Your task to perform on an android device: Clear all items from cart on costco.com. Search for jbl charge 4 on costco.com, select the first entry, and add it to the cart. Image 0: 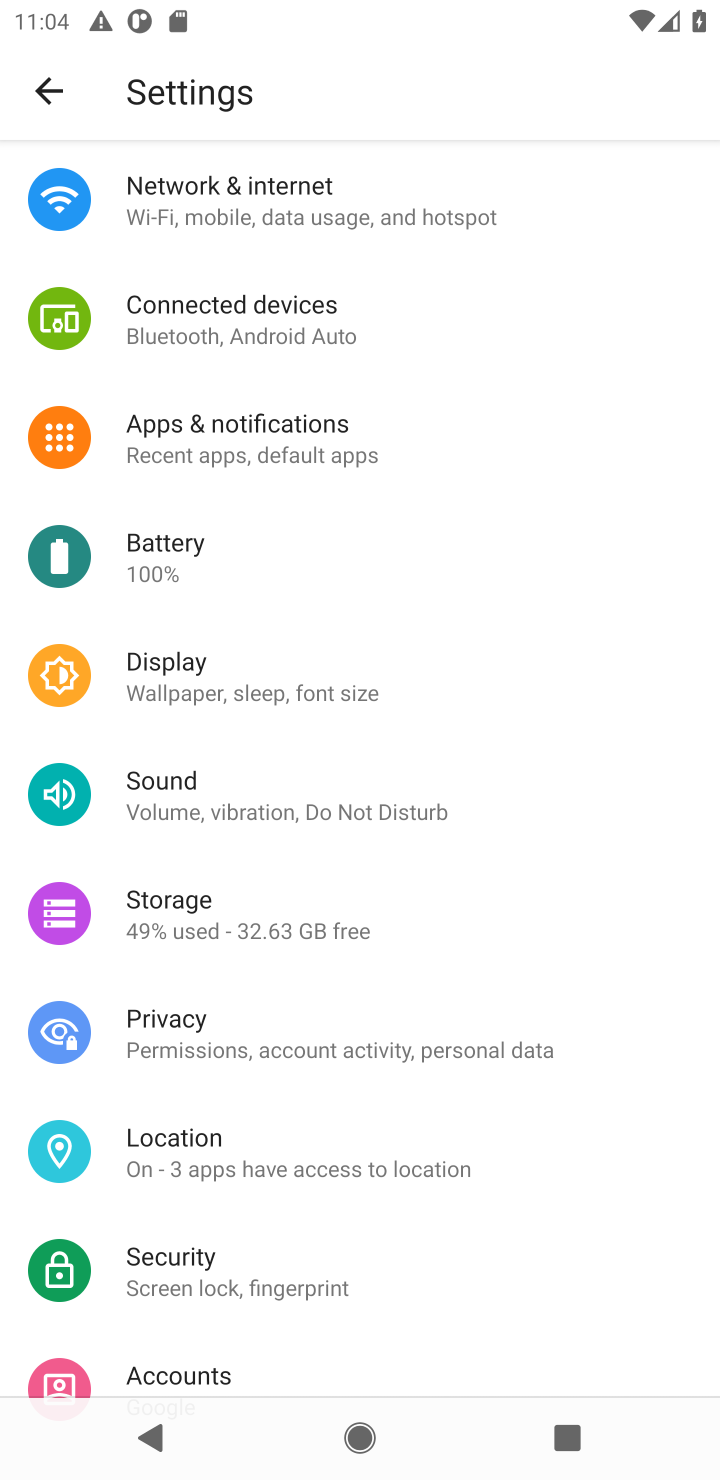
Step 0: press home button
Your task to perform on an android device: Clear all items from cart on costco.com. Search for jbl charge 4 on costco.com, select the first entry, and add it to the cart. Image 1: 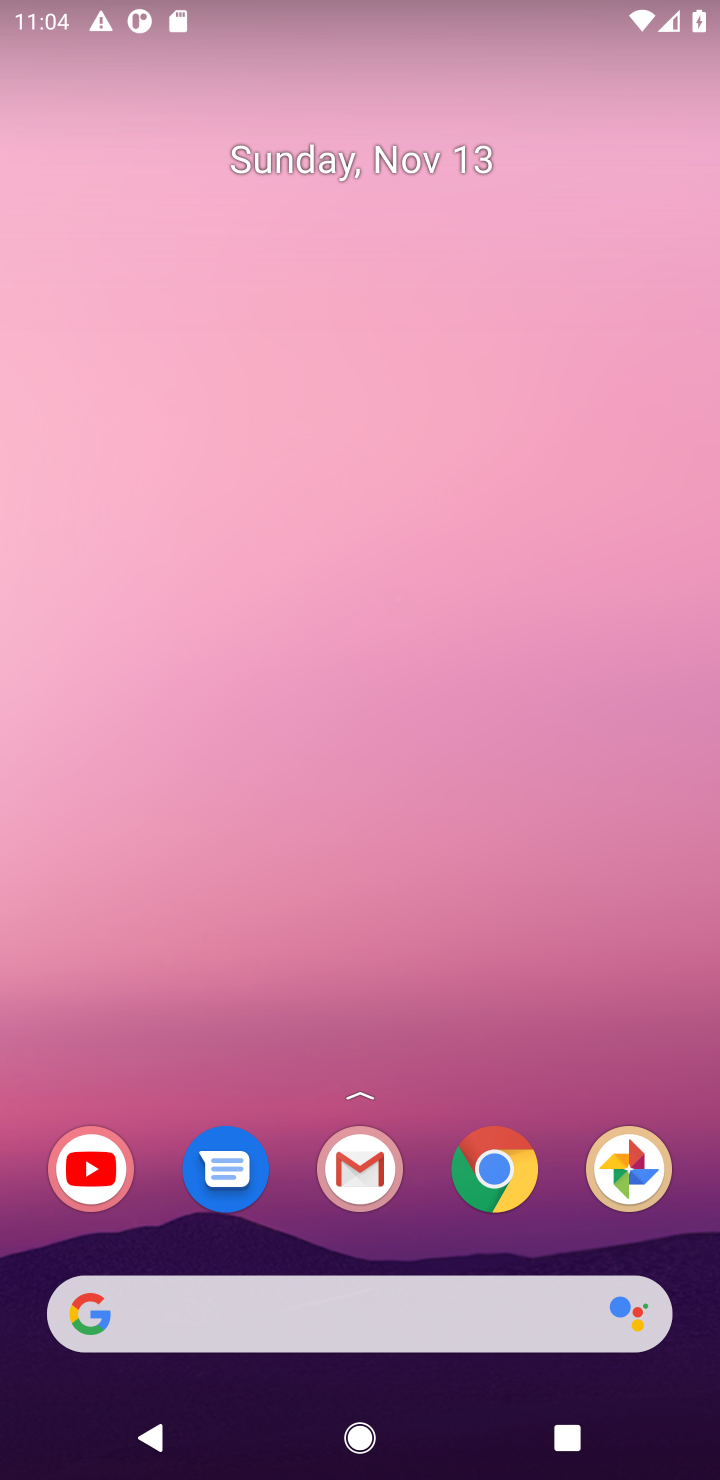
Step 1: drag from (406, 1264) to (609, 179)
Your task to perform on an android device: Clear all items from cart on costco.com. Search for jbl charge 4 on costco.com, select the first entry, and add it to the cart. Image 2: 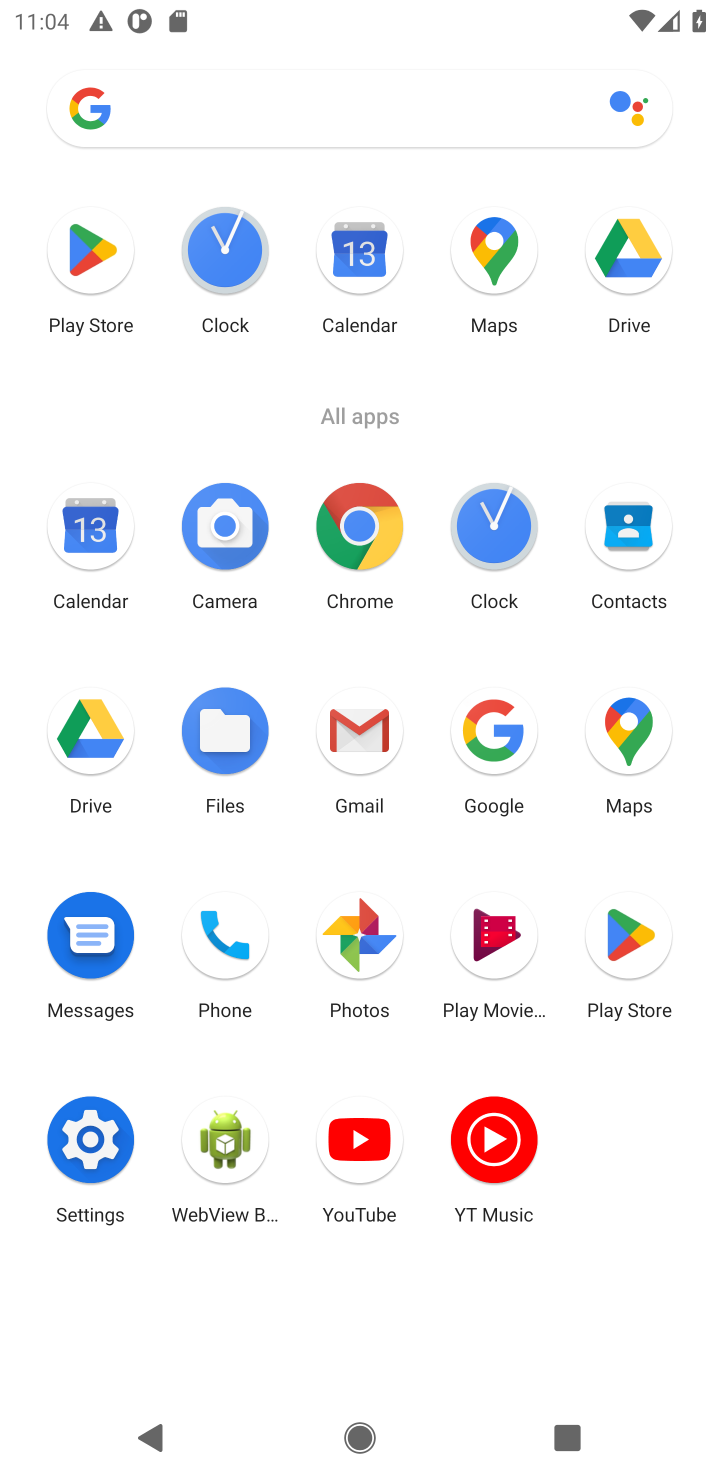
Step 2: click (372, 521)
Your task to perform on an android device: Clear all items from cart on costco.com. Search for jbl charge 4 on costco.com, select the first entry, and add it to the cart. Image 3: 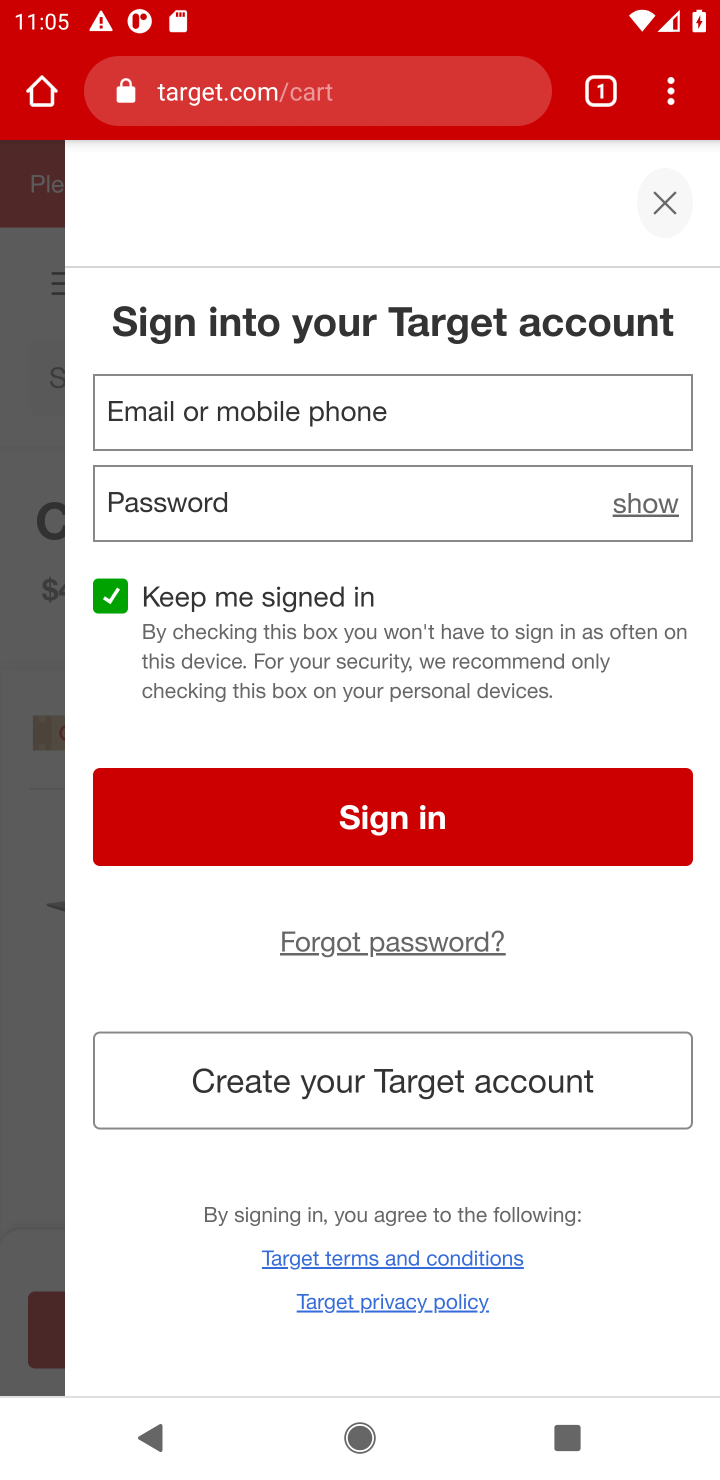
Step 3: click (311, 106)
Your task to perform on an android device: Clear all items from cart on costco.com. Search for jbl charge 4 on costco.com, select the first entry, and add it to the cart. Image 4: 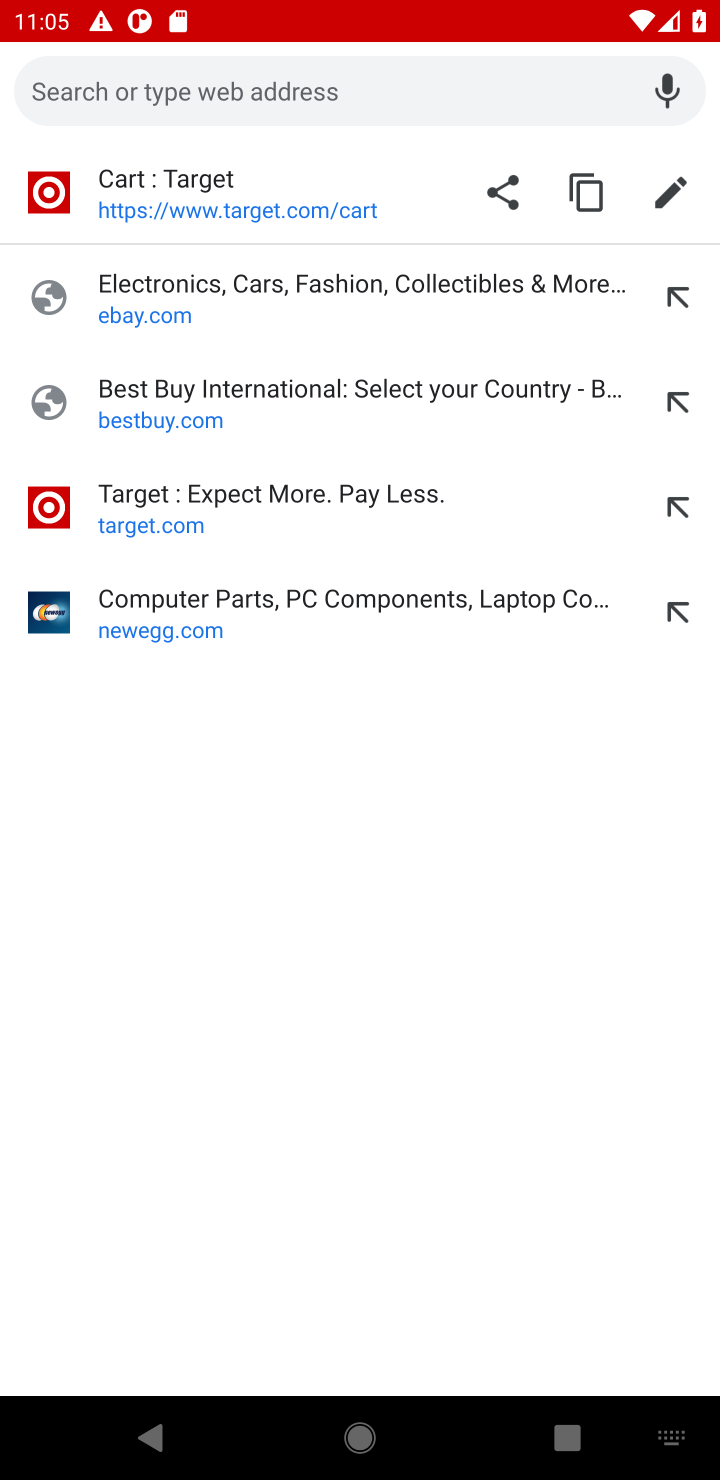
Step 4: type "costco.com"
Your task to perform on an android device: Clear all items from cart on costco.com. Search for jbl charge 4 on costco.com, select the first entry, and add it to the cart. Image 5: 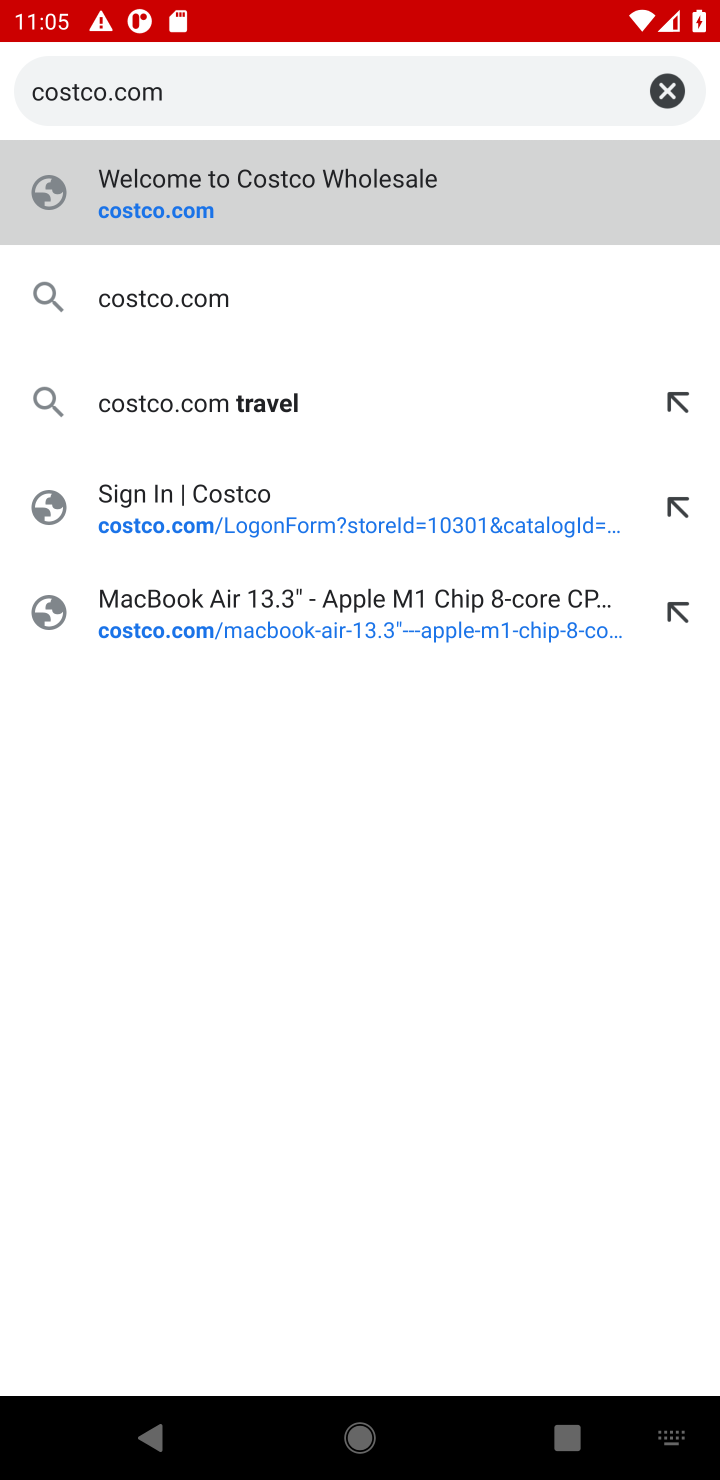
Step 5: press enter
Your task to perform on an android device: Clear all items from cart on costco.com. Search for jbl charge 4 on costco.com, select the first entry, and add it to the cart. Image 6: 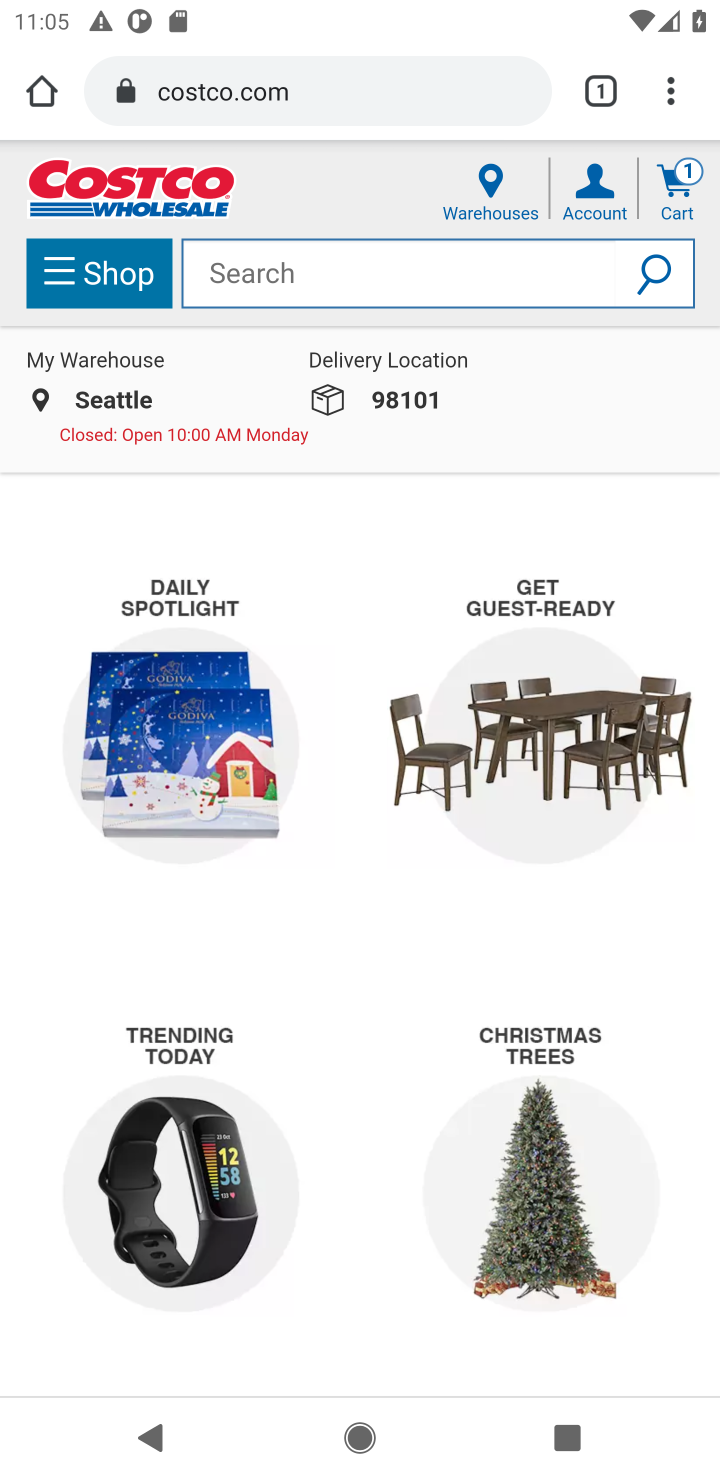
Step 6: click (684, 183)
Your task to perform on an android device: Clear all items from cart on costco.com. Search for jbl charge 4 on costco.com, select the first entry, and add it to the cart. Image 7: 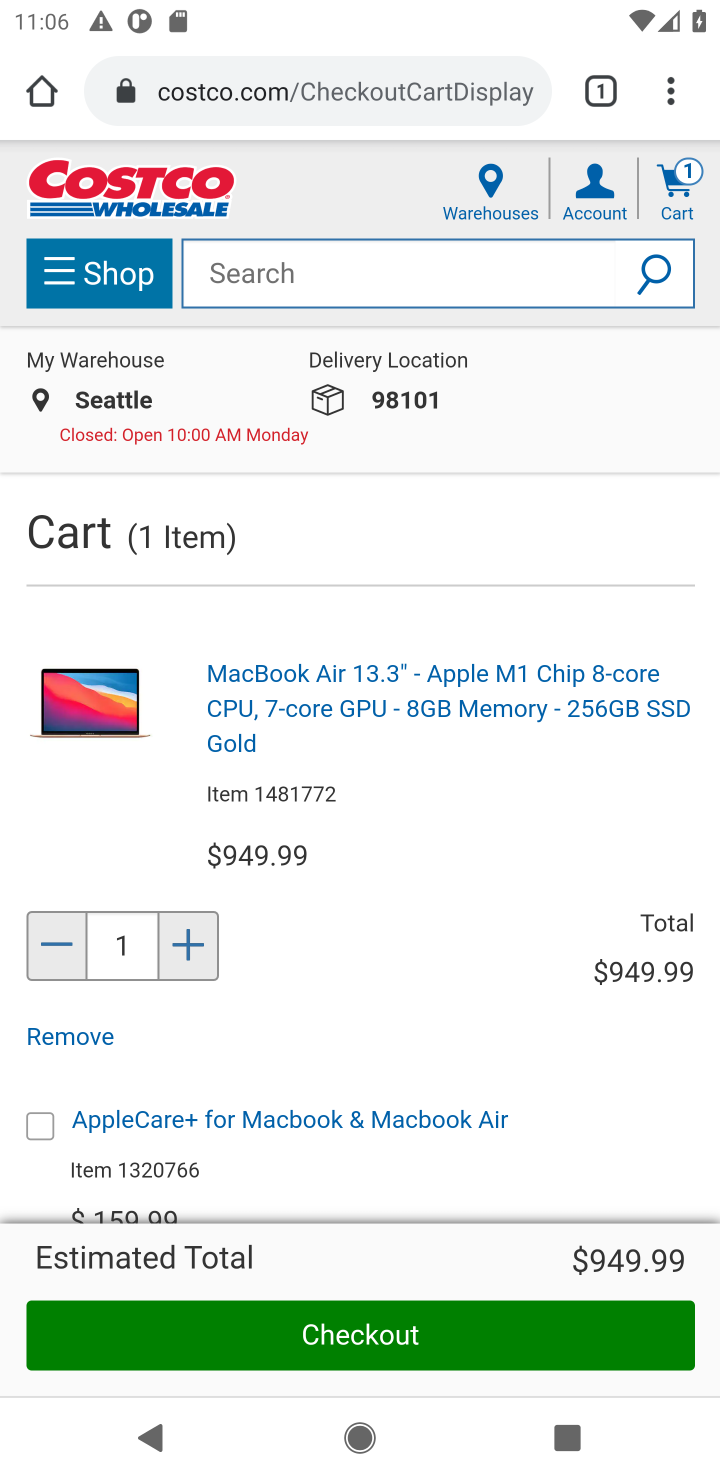
Step 7: click (94, 1026)
Your task to perform on an android device: Clear all items from cart on costco.com. Search for jbl charge 4 on costco.com, select the first entry, and add it to the cart. Image 8: 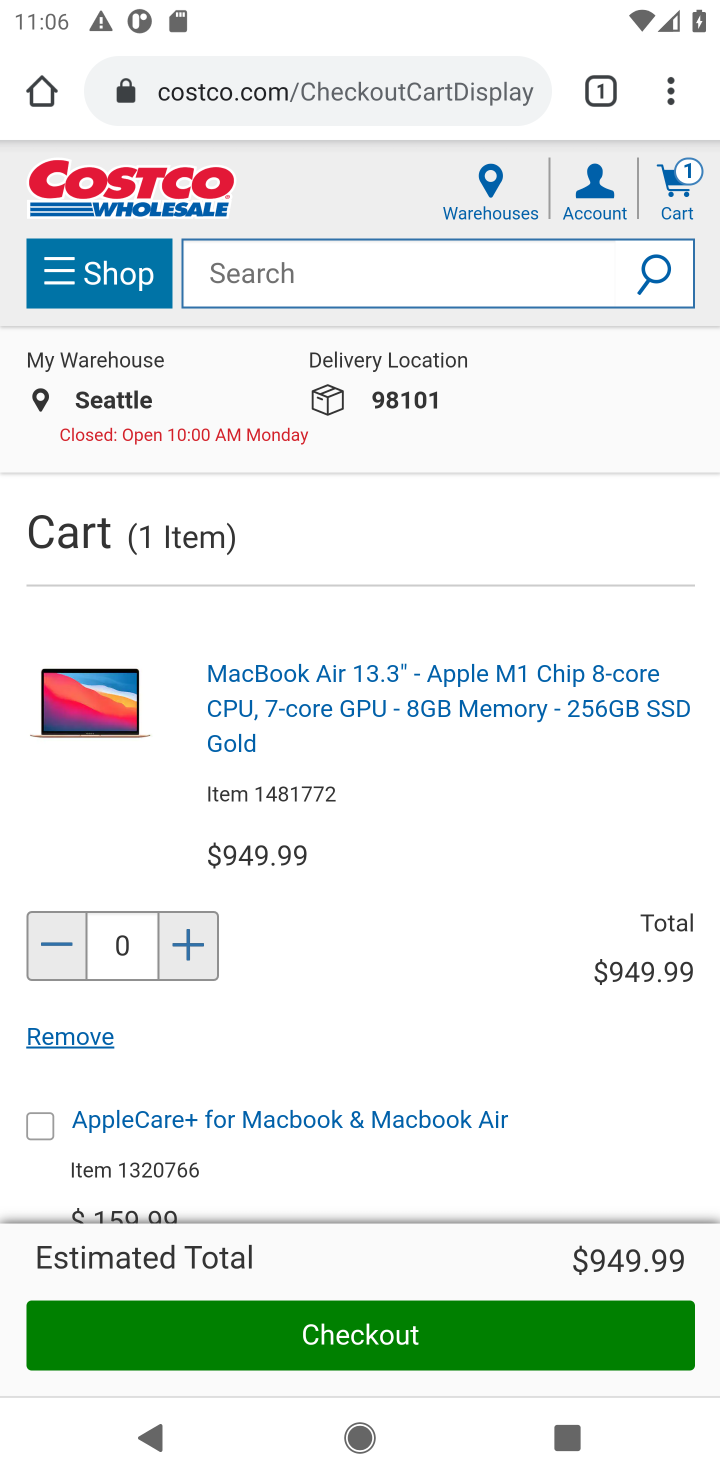
Step 8: click (94, 1026)
Your task to perform on an android device: Clear all items from cart on costco.com. Search for jbl charge 4 on costco.com, select the first entry, and add it to the cart. Image 9: 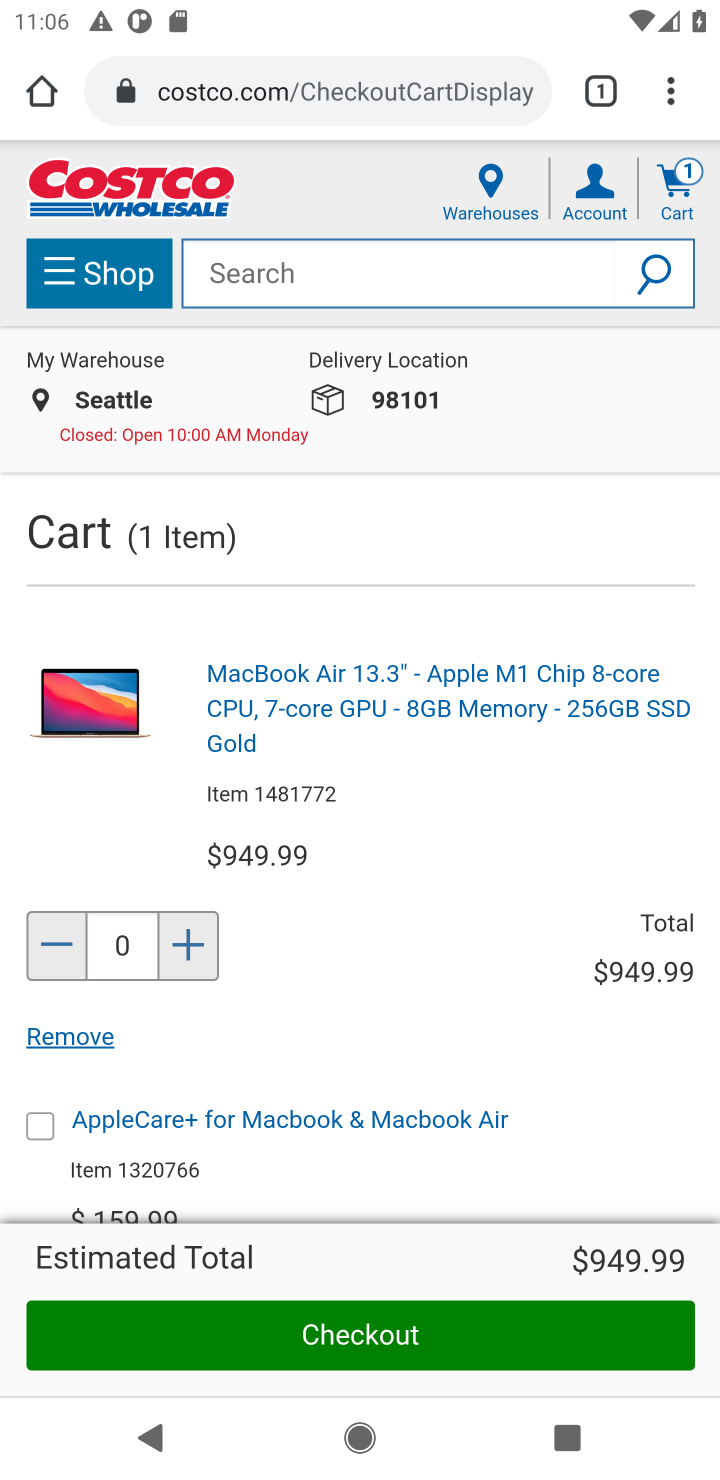
Step 9: task complete